Your task to perform on an android device: Toggle the flashlight Image 0: 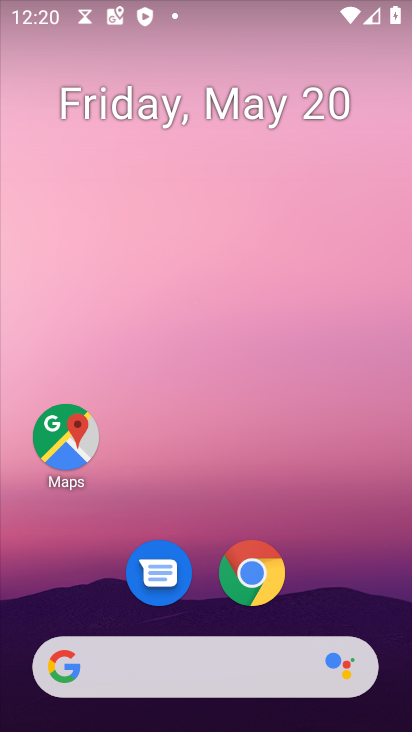
Step 0: drag from (331, 618) to (286, 54)
Your task to perform on an android device: Toggle the flashlight Image 1: 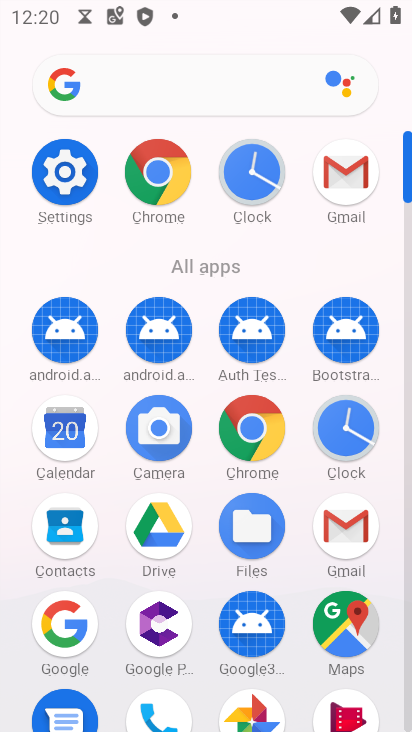
Step 1: click (65, 168)
Your task to perform on an android device: Toggle the flashlight Image 2: 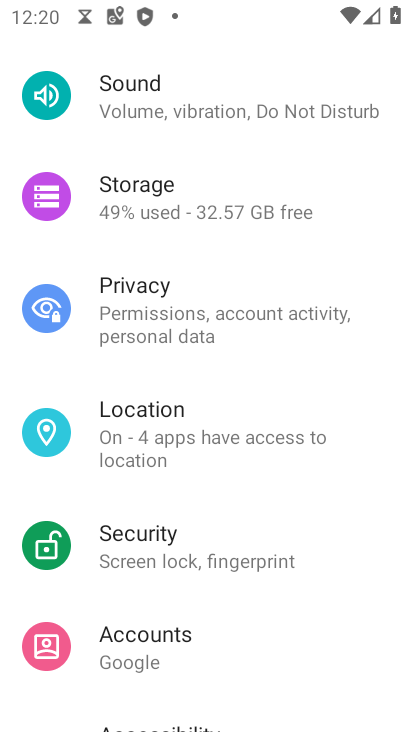
Step 2: task complete